Your task to perform on an android device: turn on the 12-hour format for clock Image 0: 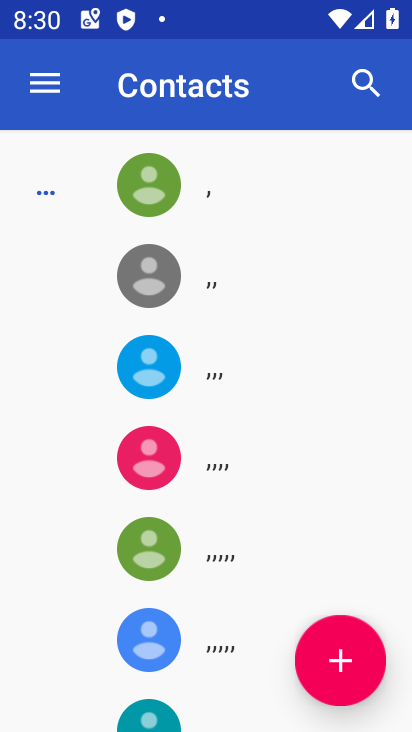
Step 0: press back button
Your task to perform on an android device: turn on the 12-hour format for clock Image 1: 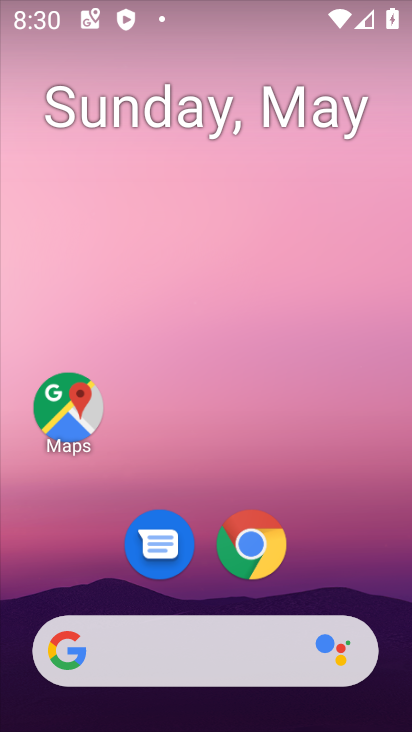
Step 1: drag from (349, 560) to (229, 45)
Your task to perform on an android device: turn on the 12-hour format for clock Image 2: 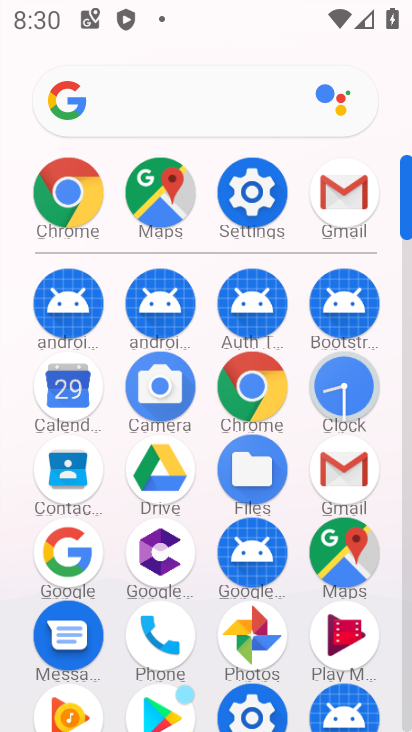
Step 2: click (341, 386)
Your task to perform on an android device: turn on the 12-hour format for clock Image 3: 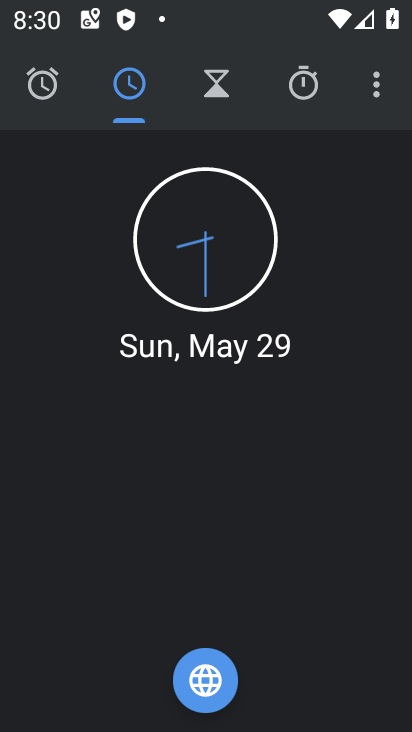
Step 3: drag from (373, 86) to (303, 171)
Your task to perform on an android device: turn on the 12-hour format for clock Image 4: 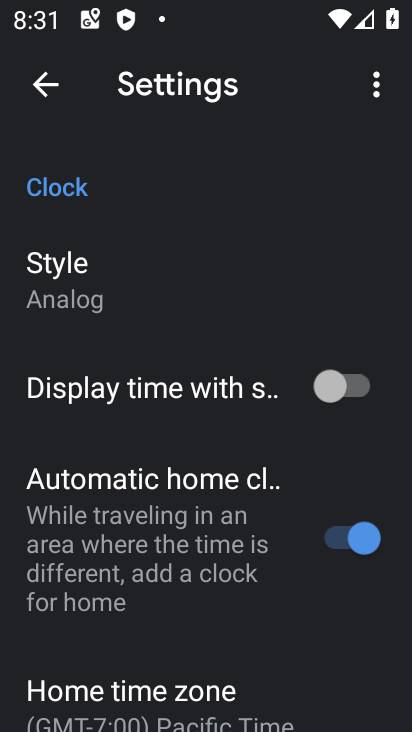
Step 4: drag from (182, 576) to (191, 253)
Your task to perform on an android device: turn on the 12-hour format for clock Image 5: 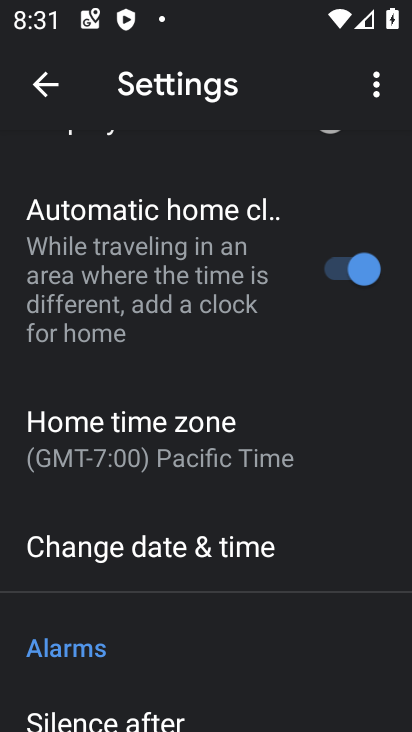
Step 5: click (165, 531)
Your task to perform on an android device: turn on the 12-hour format for clock Image 6: 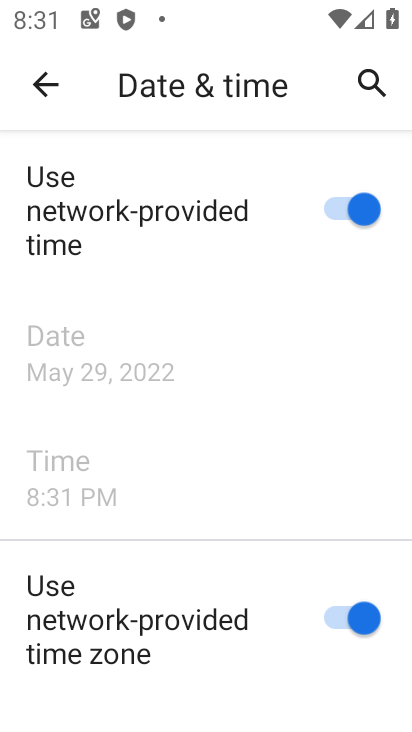
Step 6: task complete